Your task to perform on an android device: turn on the 24-hour format for clock Image 0: 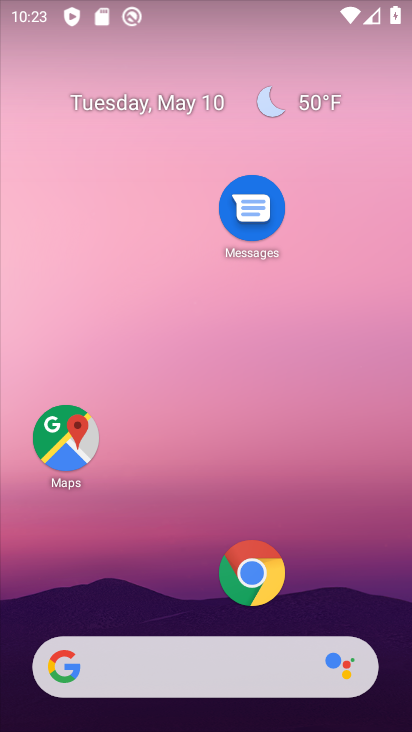
Step 0: drag from (164, 573) to (250, 28)
Your task to perform on an android device: turn on the 24-hour format for clock Image 1: 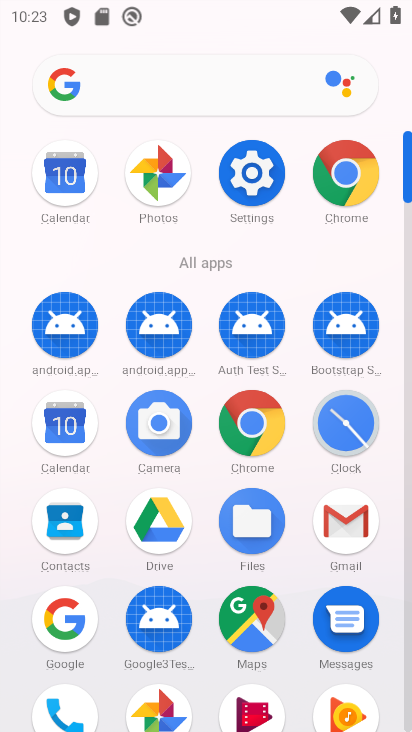
Step 1: click (332, 435)
Your task to perform on an android device: turn on the 24-hour format for clock Image 2: 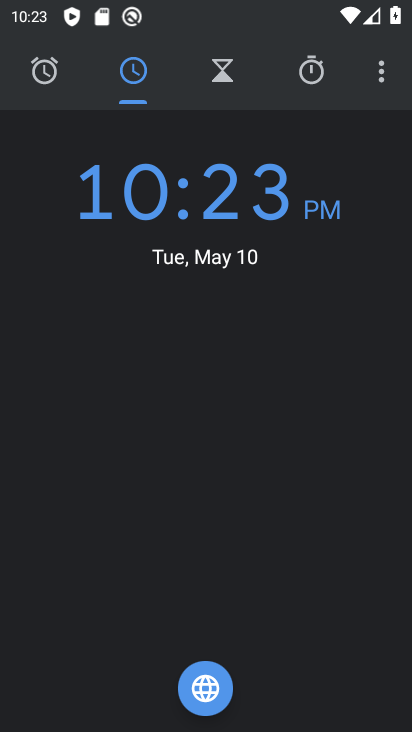
Step 2: click (359, 60)
Your task to perform on an android device: turn on the 24-hour format for clock Image 3: 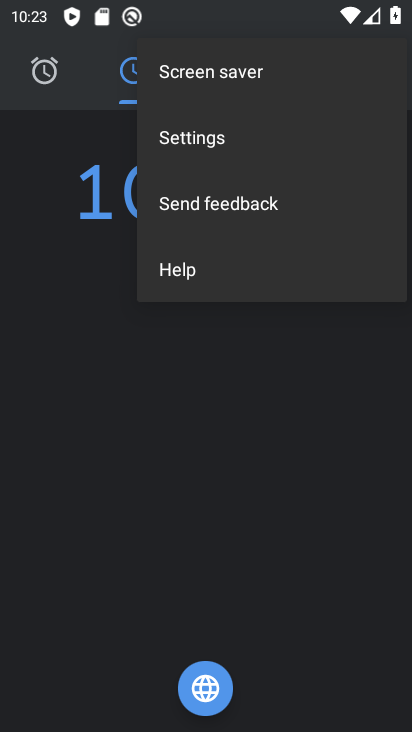
Step 3: click (203, 147)
Your task to perform on an android device: turn on the 24-hour format for clock Image 4: 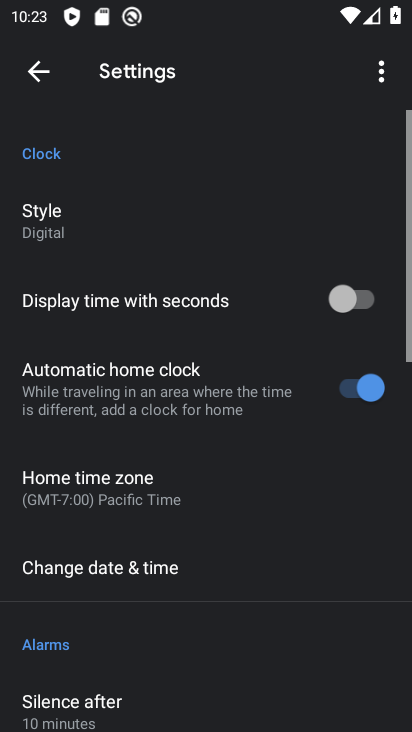
Step 4: drag from (260, 589) to (250, 338)
Your task to perform on an android device: turn on the 24-hour format for clock Image 5: 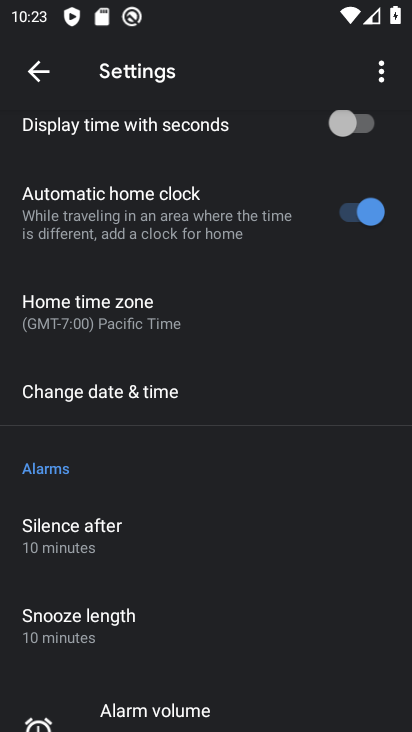
Step 5: click (146, 379)
Your task to perform on an android device: turn on the 24-hour format for clock Image 6: 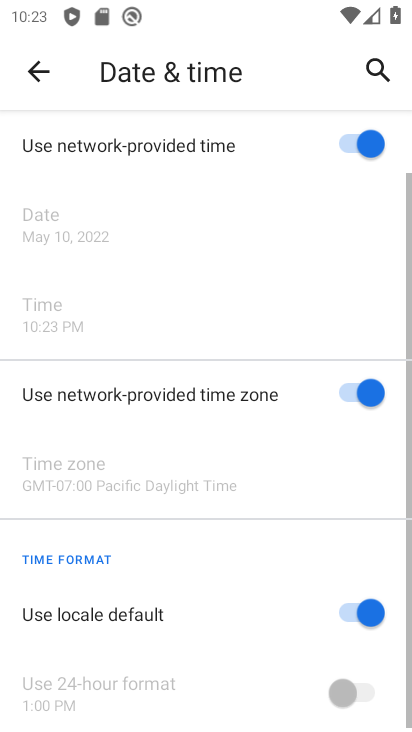
Step 6: drag from (221, 531) to (241, 26)
Your task to perform on an android device: turn on the 24-hour format for clock Image 7: 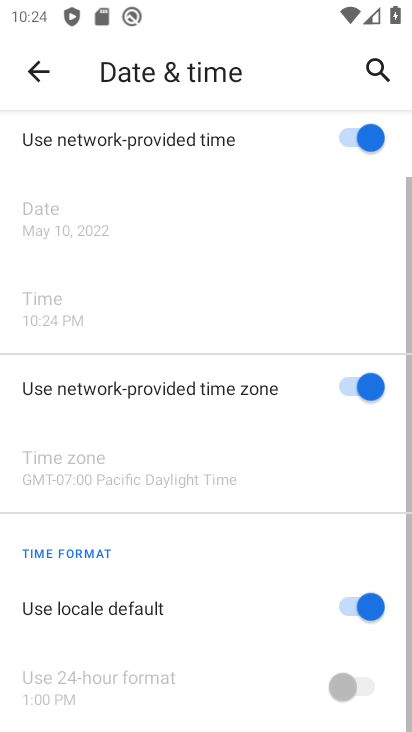
Step 7: click (366, 615)
Your task to perform on an android device: turn on the 24-hour format for clock Image 8: 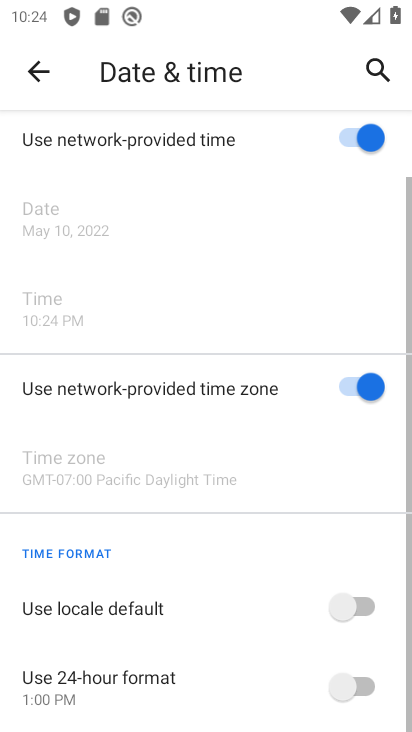
Step 8: click (352, 693)
Your task to perform on an android device: turn on the 24-hour format for clock Image 9: 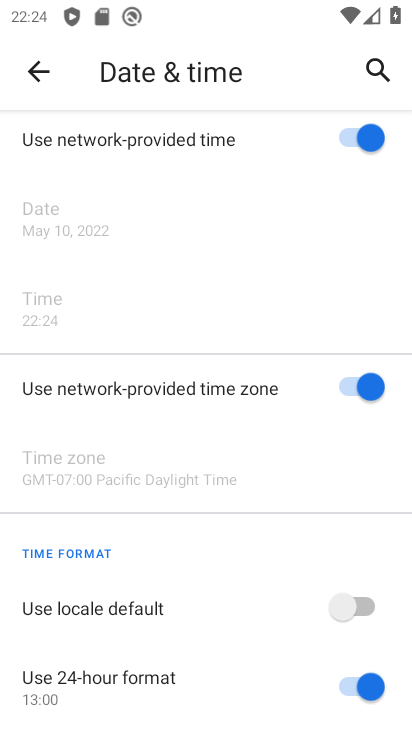
Step 9: task complete